Your task to perform on an android device: find which apps use the phone's location Image 0: 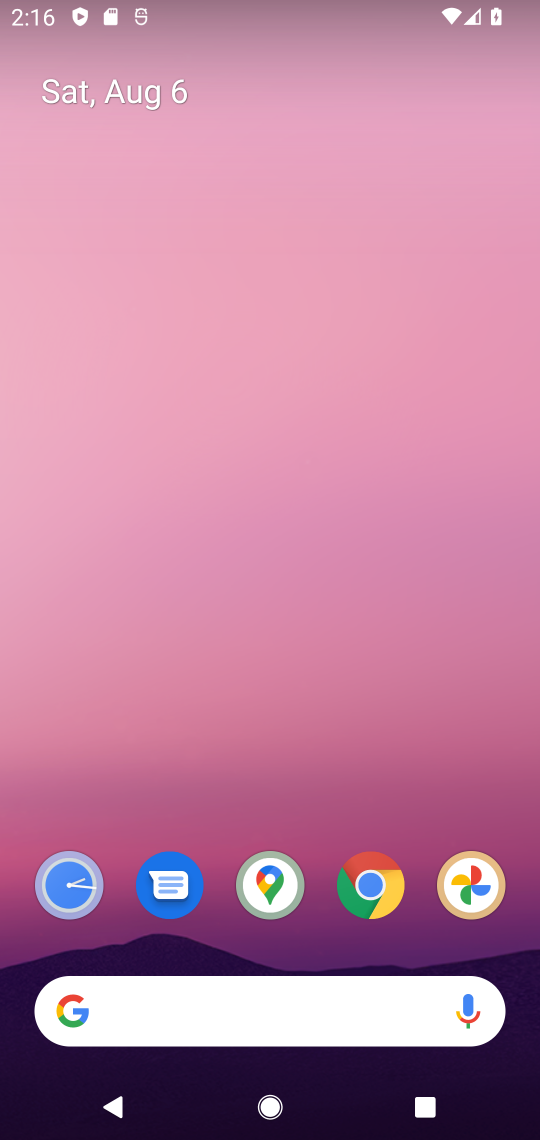
Step 0: drag from (509, 953) to (251, 12)
Your task to perform on an android device: find which apps use the phone's location Image 1: 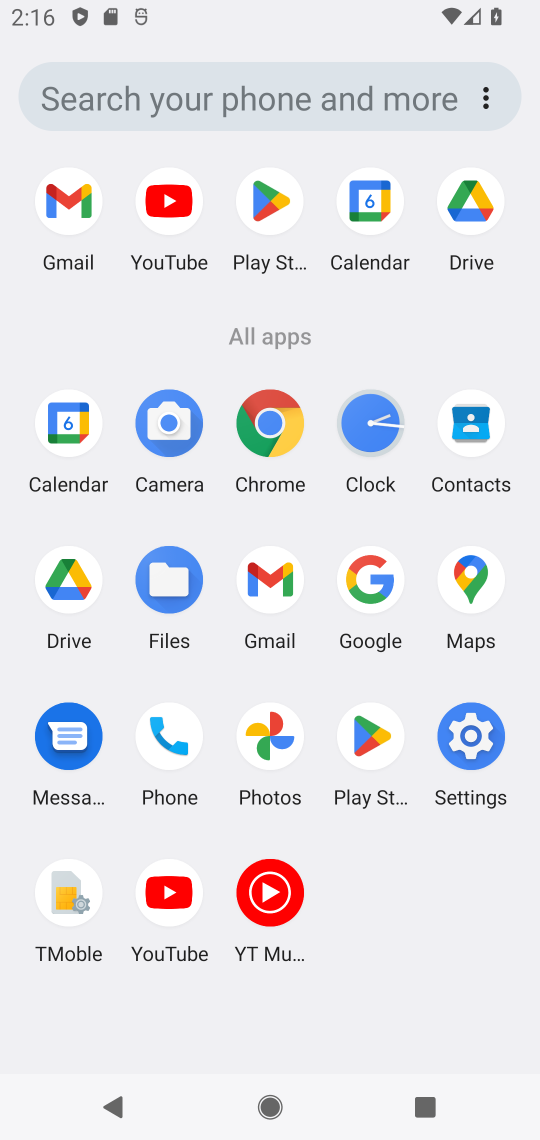
Step 1: click (455, 751)
Your task to perform on an android device: find which apps use the phone's location Image 2: 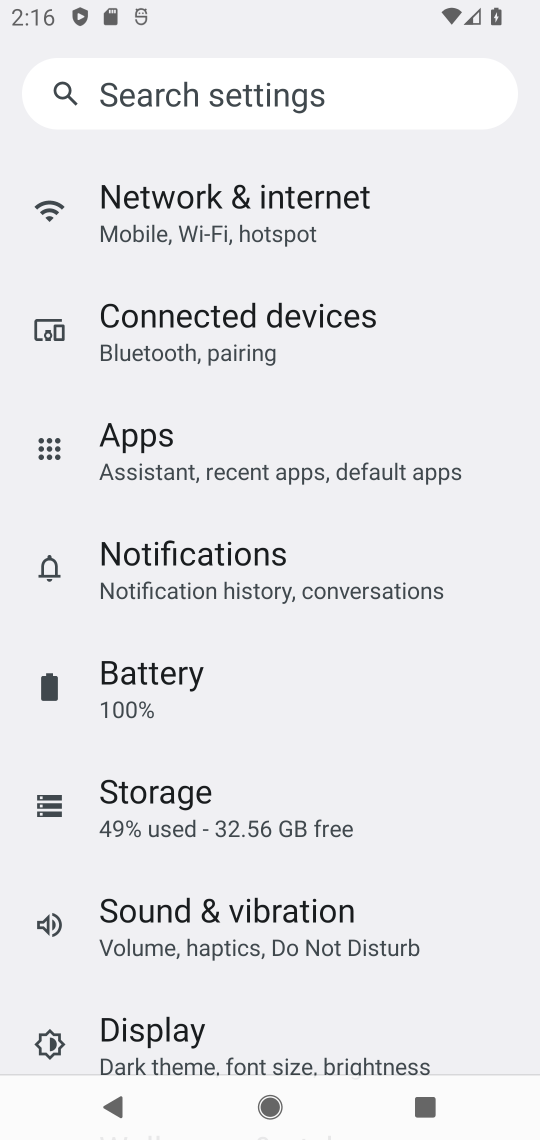
Step 2: drag from (279, 986) to (175, 159)
Your task to perform on an android device: find which apps use the phone's location Image 3: 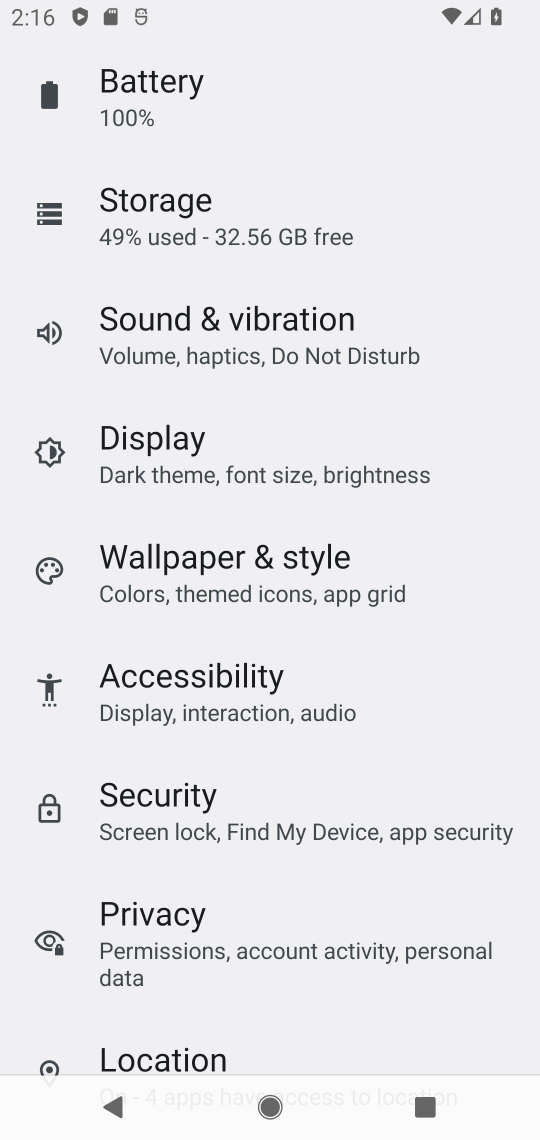
Step 3: click (138, 1074)
Your task to perform on an android device: find which apps use the phone's location Image 4: 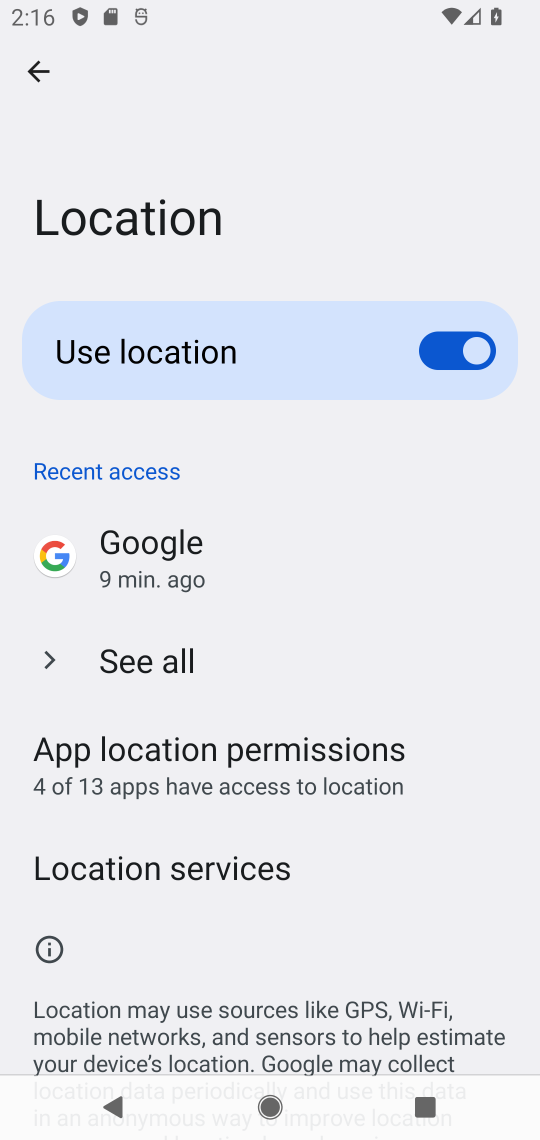
Step 4: click (146, 759)
Your task to perform on an android device: find which apps use the phone's location Image 5: 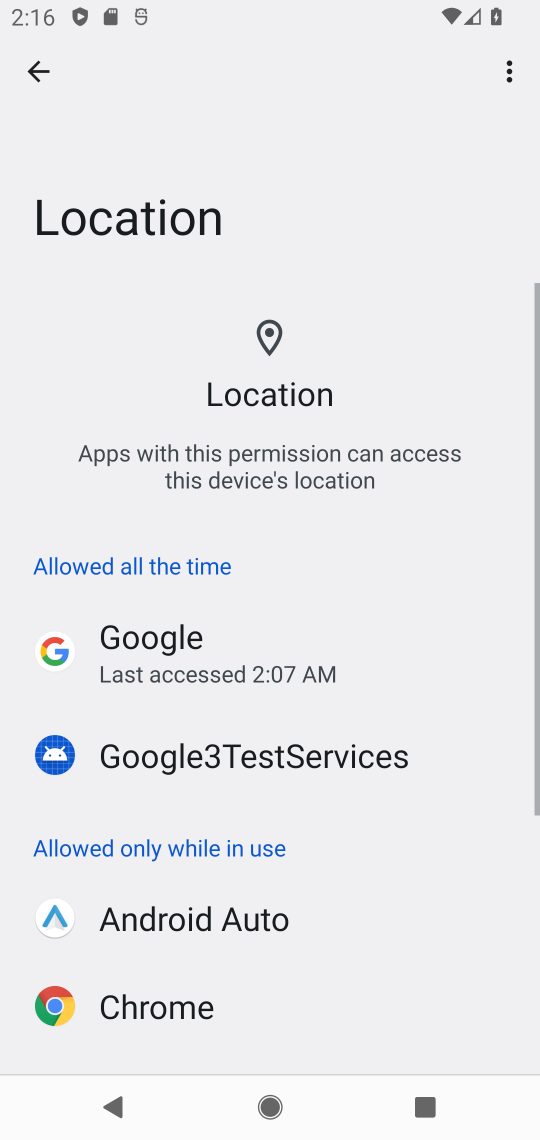
Step 5: drag from (94, 958) to (140, 194)
Your task to perform on an android device: find which apps use the phone's location Image 6: 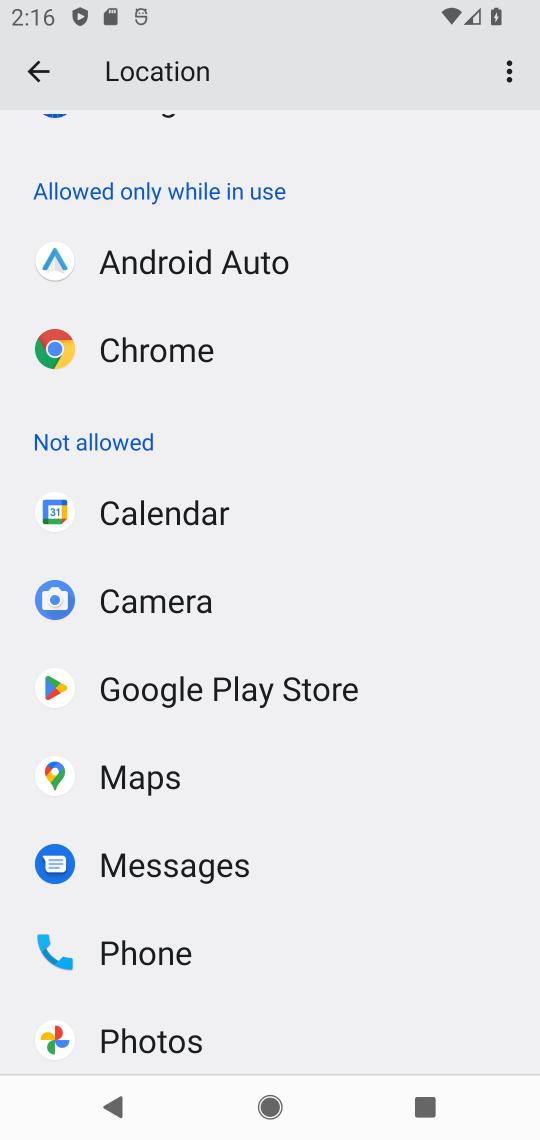
Step 6: click (93, 978)
Your task to perform on an android device: find which apps use the phone's location Image 7: 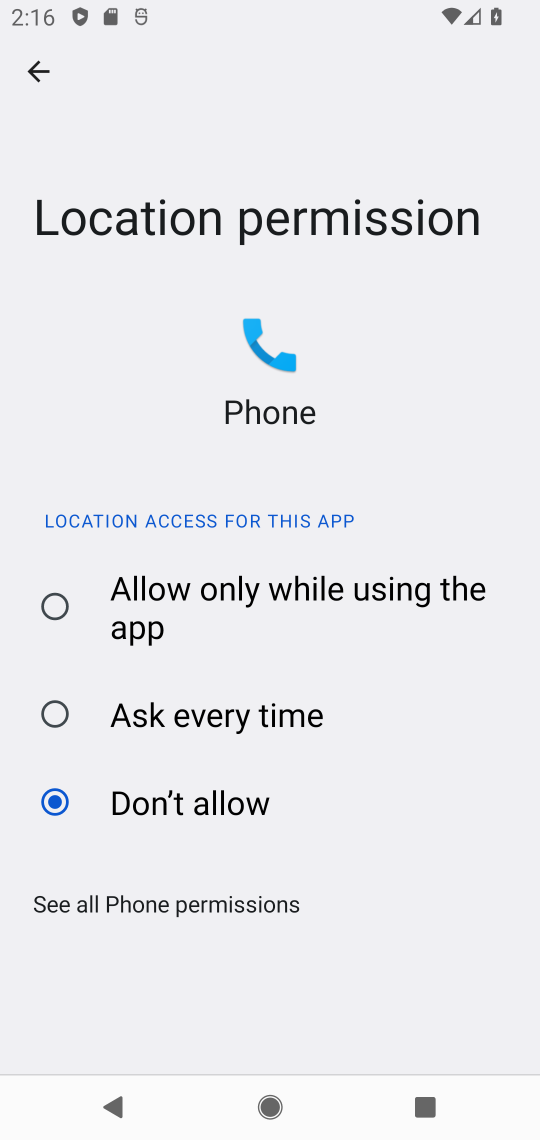
Step 7: click (78, 598)
Your task to perform on an android device: find which apps use the phone's location Image 8: 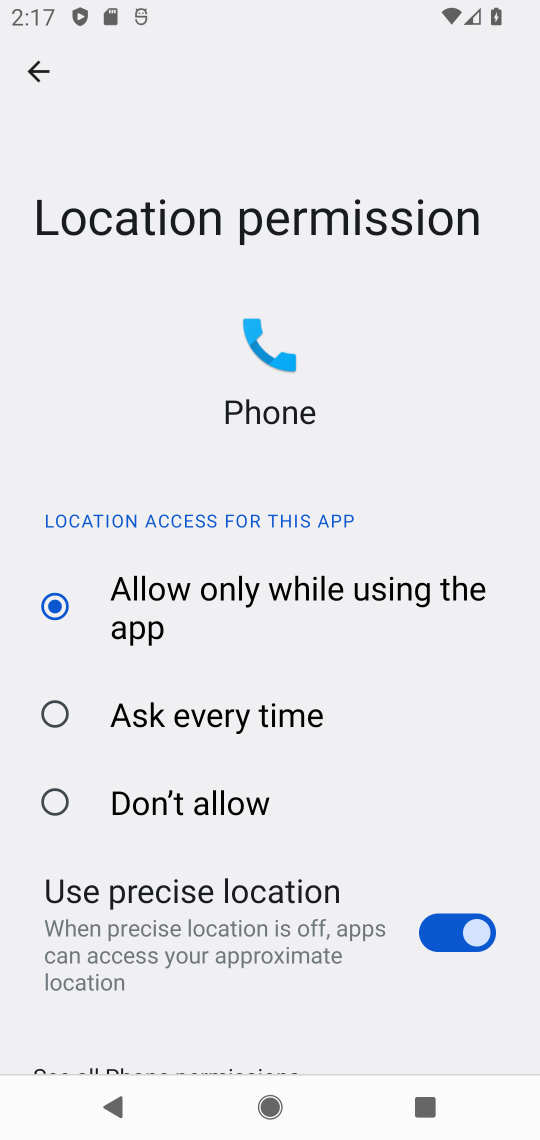
Step 8: task complete